Your task to perform on an android device: Do I have any events this weekend? Image 0: 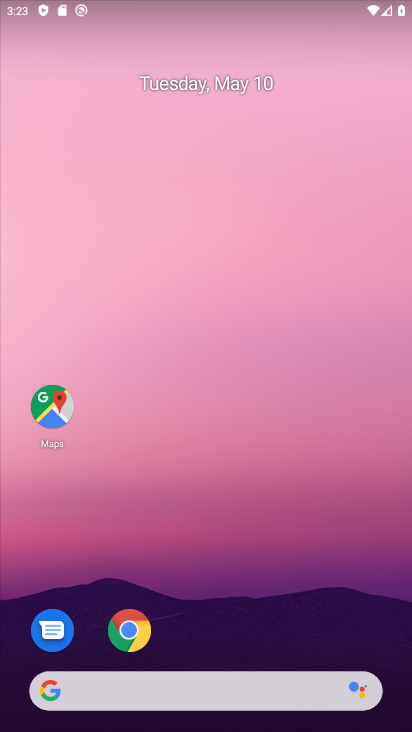
Step 0: drag from (181, 619) to (224, 199)
Your task to perform on an android device: Do I have any events this weekend? Image 1: 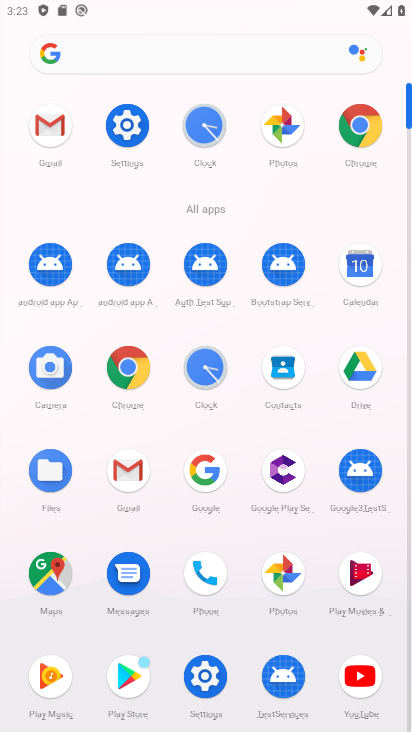
Step 1: press home button
Your task to perform on an android device: Do I have any events this weekend? Image 2: 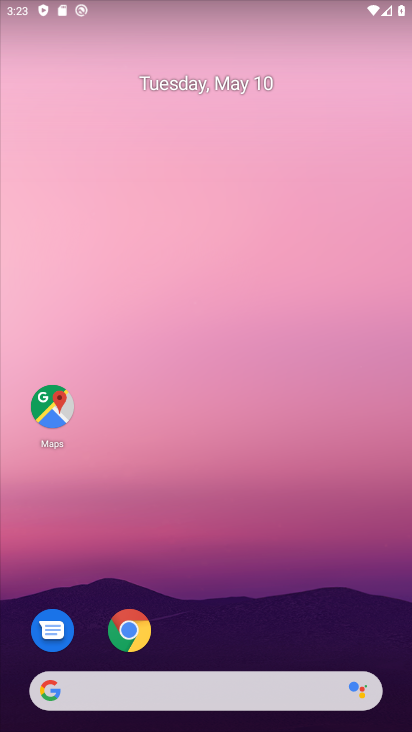
Step 2: click (159, 85)
Your task to perform on an android device: Do I have any events this weekend? Image 3: 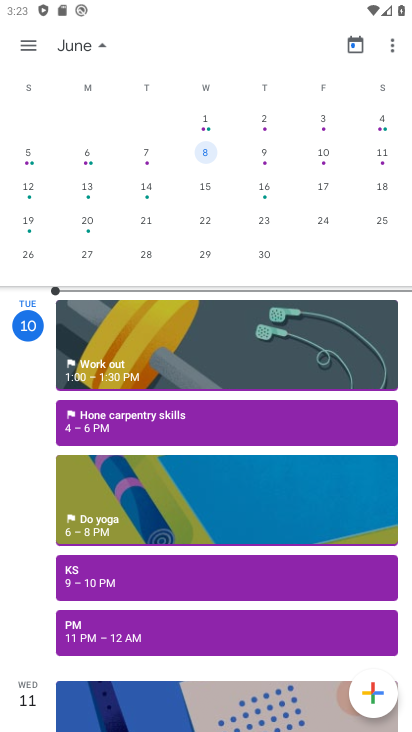
Step 3: click (379, 147)
Your task to perform on an android device: Do I have any events this weekend? Image 4: 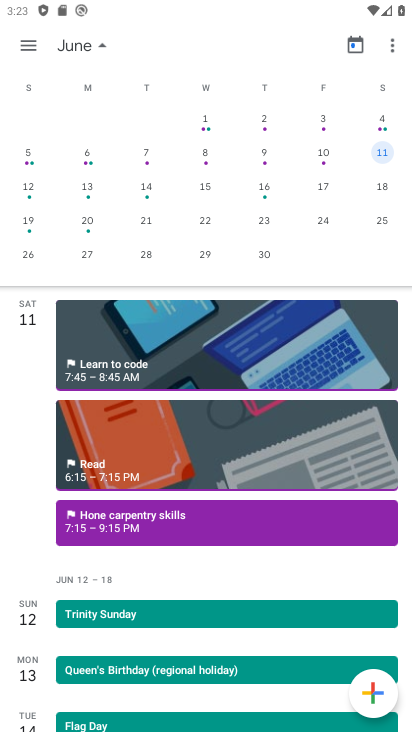
Step 4: task complete